Your task to perform on an android device: Open sound settings Image 0: 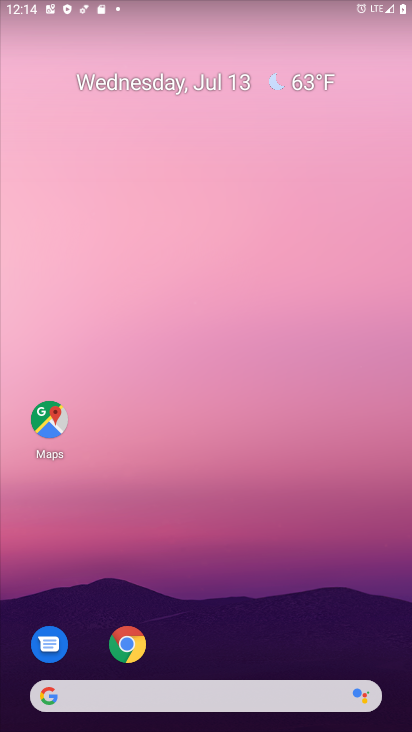
Step 0: drag from (188, 694) to (275, 144)
Your task to perform on an android device: Open sound settings Image 1: 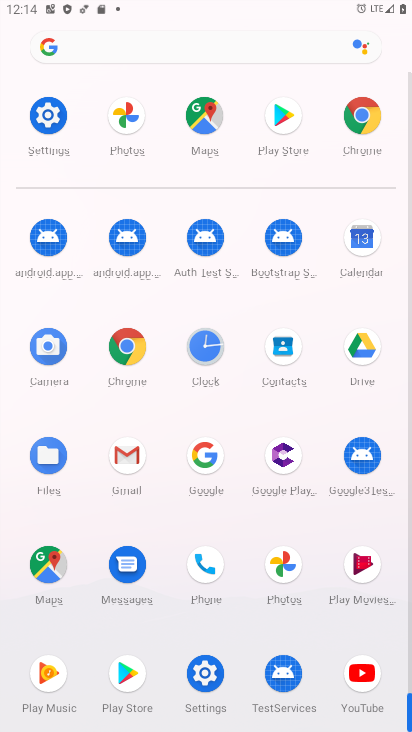
Step 1: click (47, 114)
Your task to perform on an android device: Open sound settings Image 2: 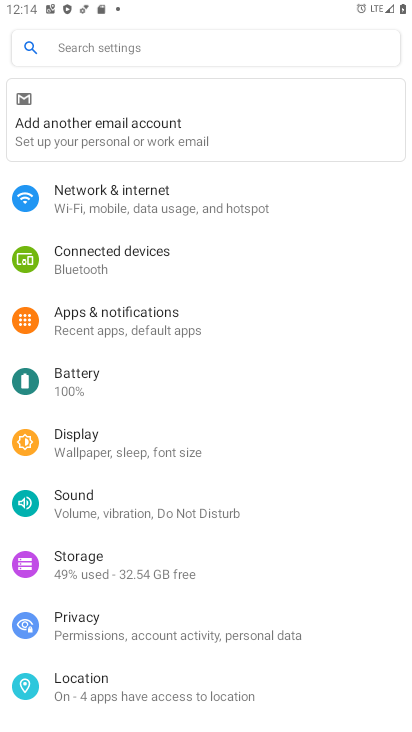
Step 2: click (84, 505)
Your task to perform on an android device: Open sound settings Image 3: 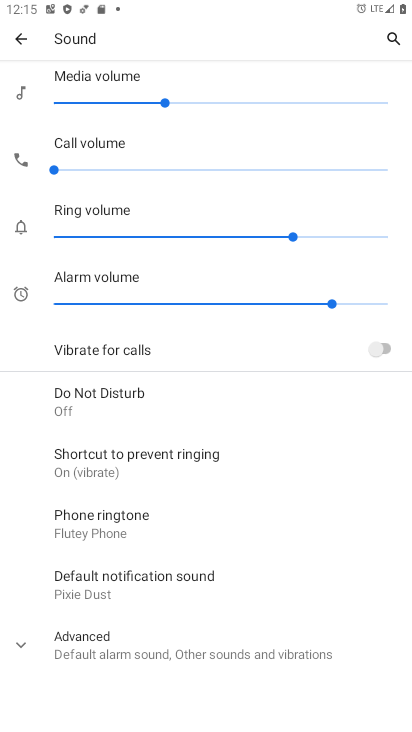
Step 3: task complete